Your task to perform on an android device: Toggle the flashlight Image 0: 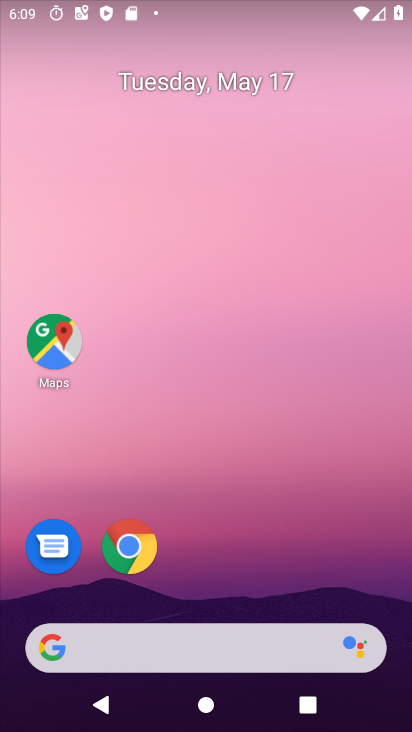
Step 0: drag from (212, 472) to (241, 355)
Your task to perform on an android device: Toggle the flashlight Image 1: 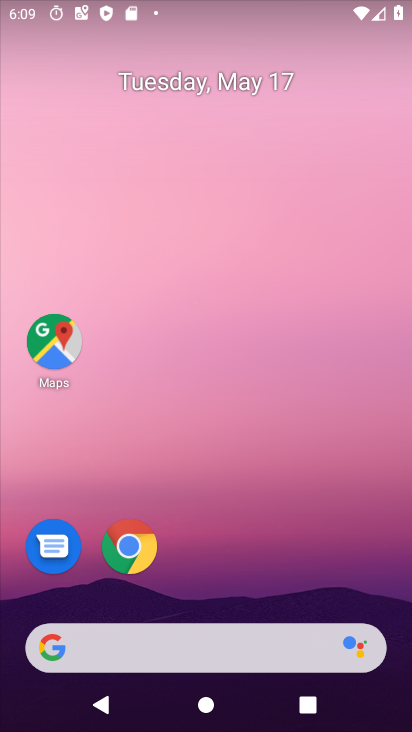
Step 1: task complete